Your task to perform on an android device: Open Google Maps Image 0: 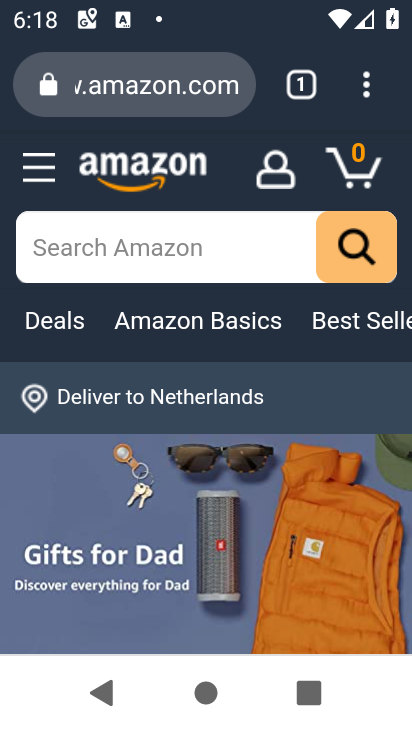
Step 0: press home button
Your task to perform on an android device: Open Google Maps Image 1: 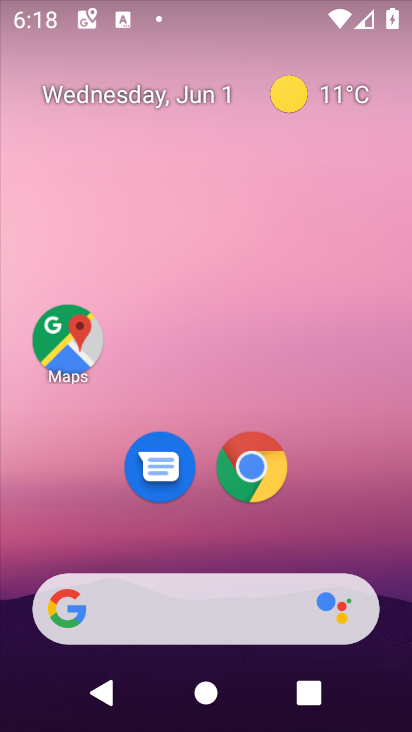
Step 1: click (72, 341)
Your task to perform on an android device: Open Google Maps Image 2: 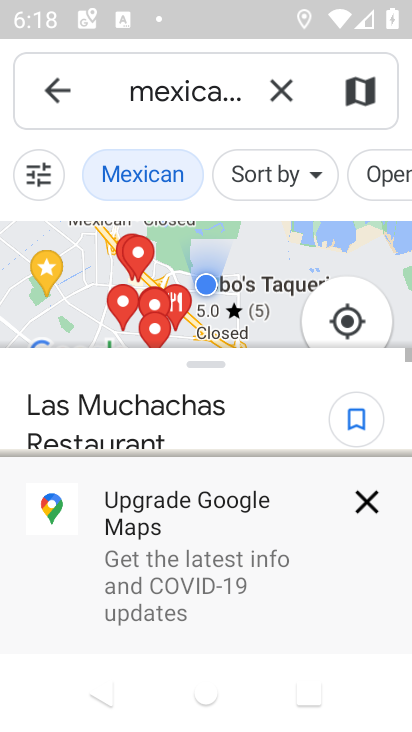
Step 2: task complete